Your task to perform on an android device: Go to Google Image 0: 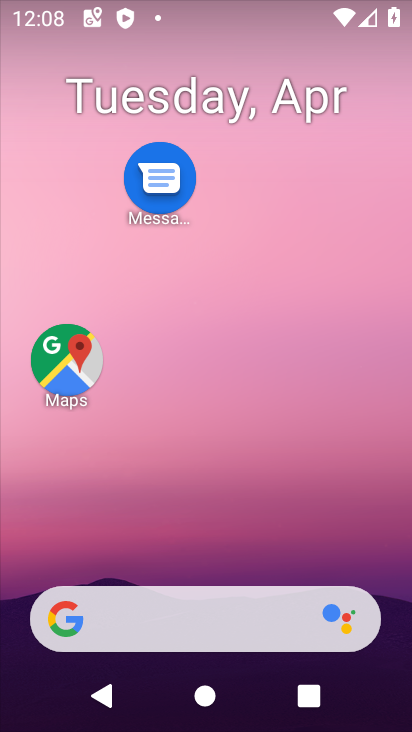
Step 0: drag from (206, 724) to (208, 1)
Your task to perform on an android device: Go to Google Image 1: 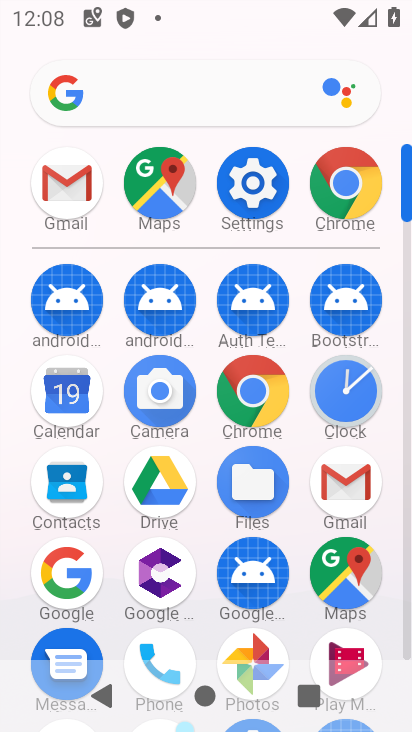
Step 1: click (70, 573)
Your task to perform on an android device: Go to Google Image 2: 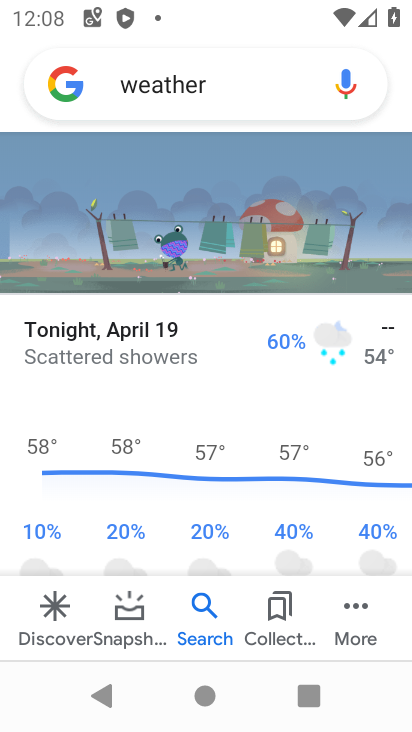
Step 2: task complete